Your task to perform on an android device: turn on the 12-hour format for clock Image 0: 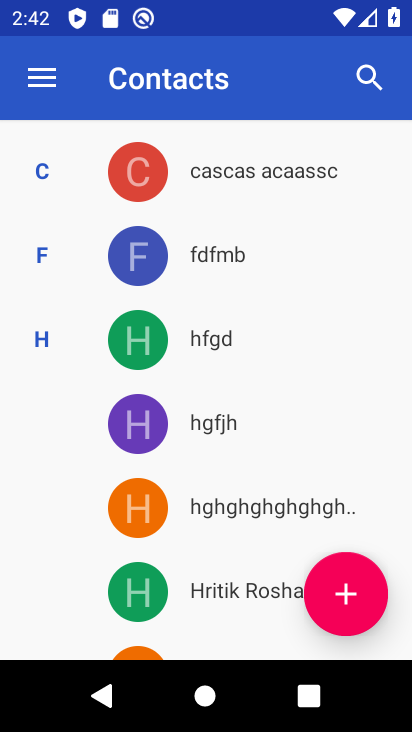
Step 0: press home button
Your task to perform on an android device: turn on the 12-hour format for clock Image 1: 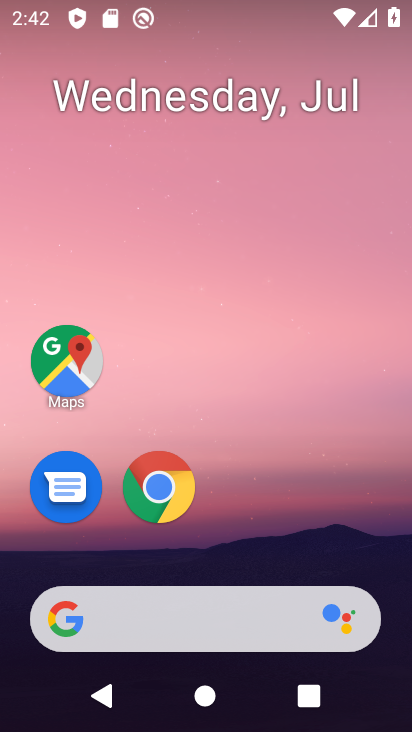
Step 1: drag from (353, 543) to (303, 130)
Your task to perform on an android device: turn on the 12-hour format for clock Image 2: 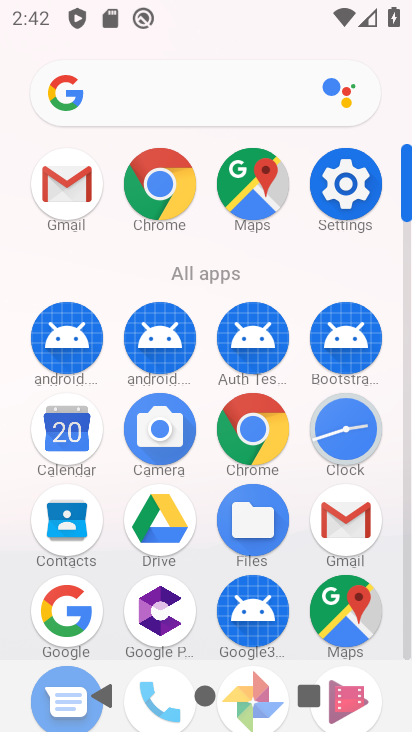
Step 2: click (359, 436)
Your task to perform on an android device: turn on the 12-hour format for clock Image 3: 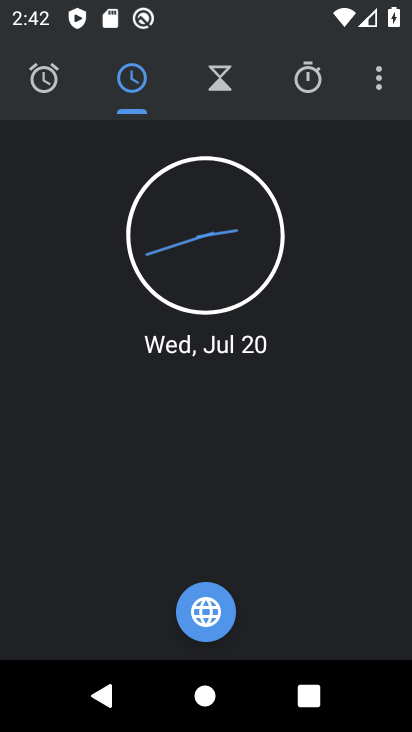
Step 3: click (386, 76)
Your task to perform on an android device: turn on the 12-hour format for clock Image 4: 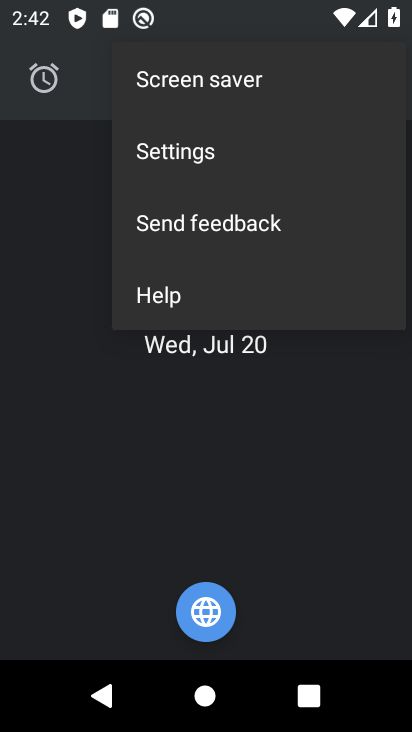
Step 4: click (319, 150)
Your task to perform on an android device: turn on the 12-hour format for clock Image 5: 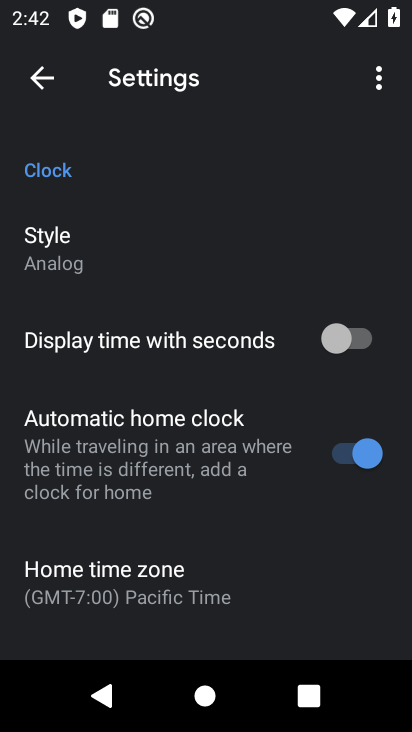
Step 5: drag from (289, 617) to (260, 314)
Your task to perform on an android device: turn on the 12-hour format for clock Image 6: 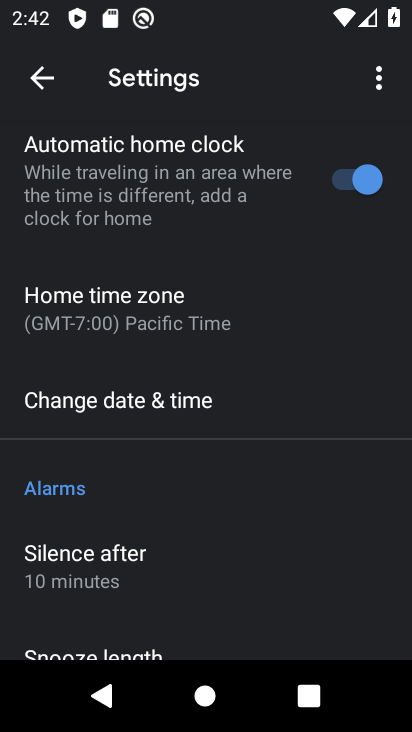
Step 6: click (271, 402)
Your task to perform on an android device: turn on the 12-hour format for clock Image 7: 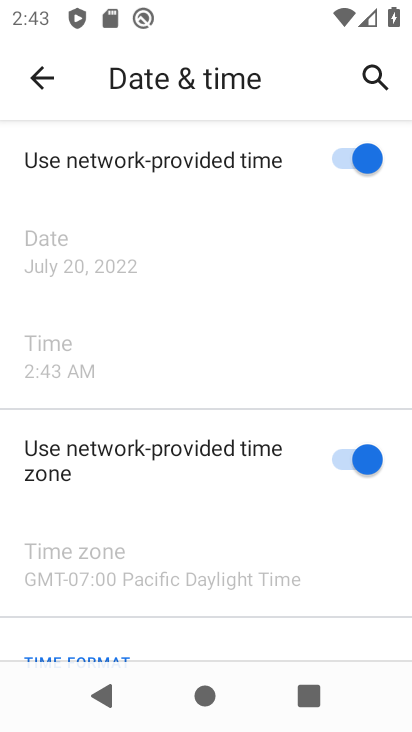
Step 7: task complete